Your task to perform on an android device: Go to internet settings Image 0: 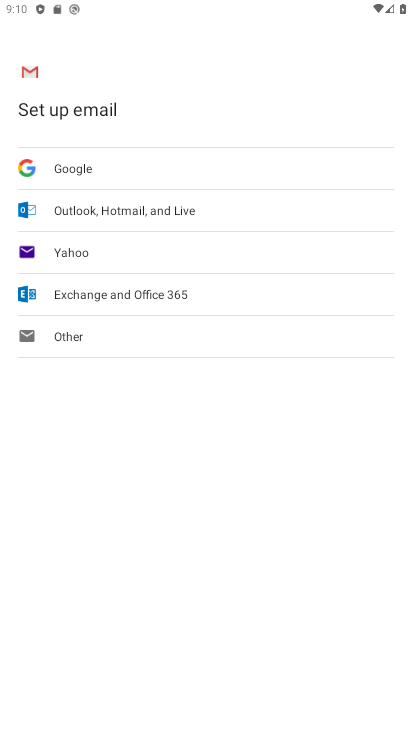
Step 0: press home button
Your task to perform on an android device: Go to internet settings Image 1: 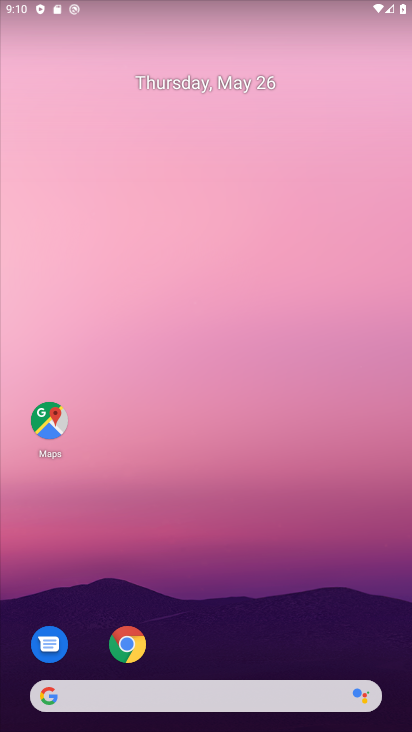
Step 1: drag from (247, 604) to (285, 331)
Your task to perform on an android device: Go to internet settings Image 2: 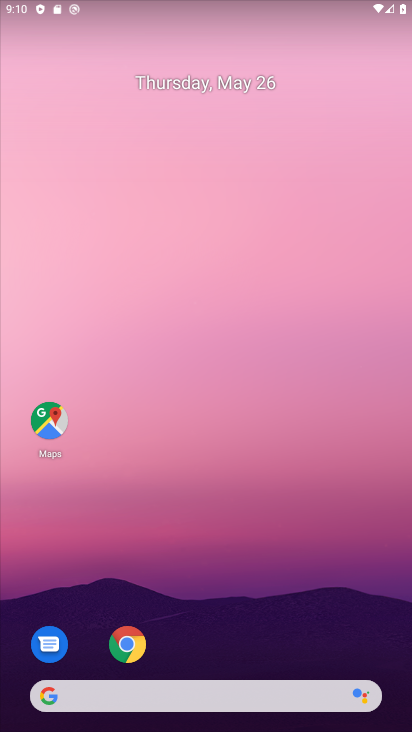
Step 2: drag from (215, 655) to (253, 306)
Your task to perform on an android device: Go to internet settings Image 3: 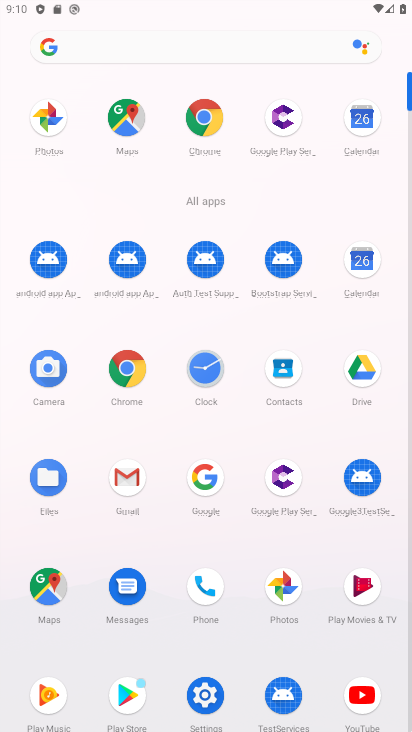
Step 3: click (199, 699)
Your task to perform on an android device: Go to internet settings Image 4: 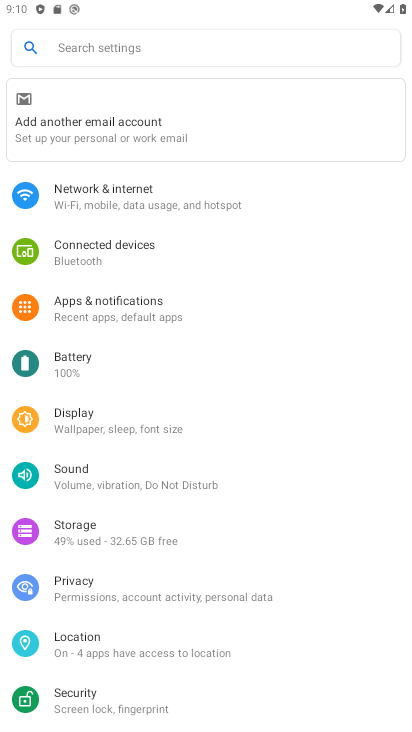
Step 4: click (165, 192)
Your task to perform on an android device: Go to internet settings Image 5: 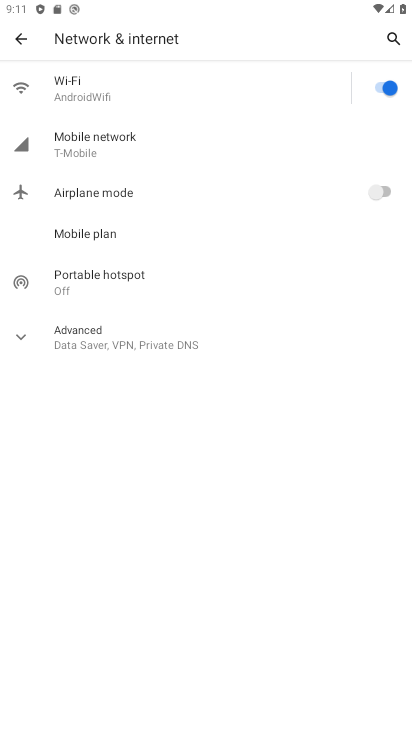
Step 5: task complete